Your task to perform on an android device: turn notification dots off Image 0: 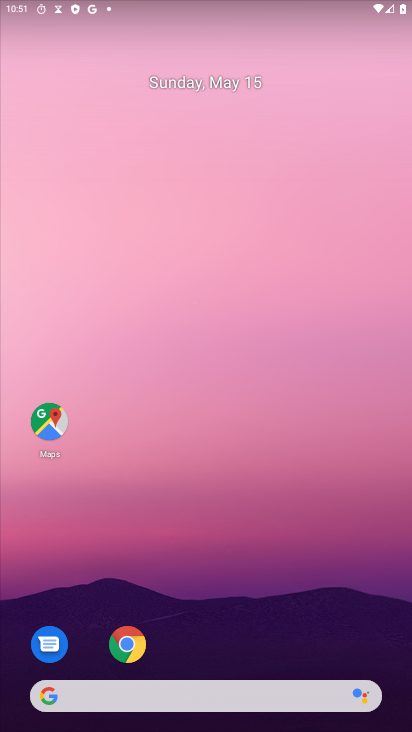
Step 0: drag from (258, 626) to (213, 284)
Your task to perform on an android device: turn notification dots off Image 1: 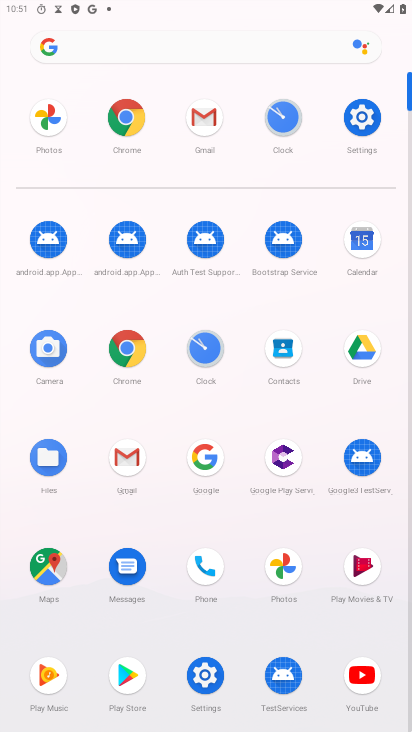
Step 1: click (366, 120)
Your task to perform on an android device: turn notification dots off Image 2: 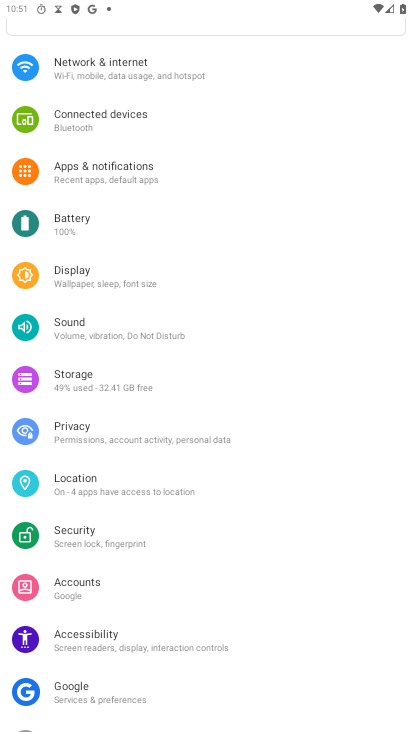
Step 2: click (60, 163)
Your task to perform on an android device: turn notification dots off Image 3: 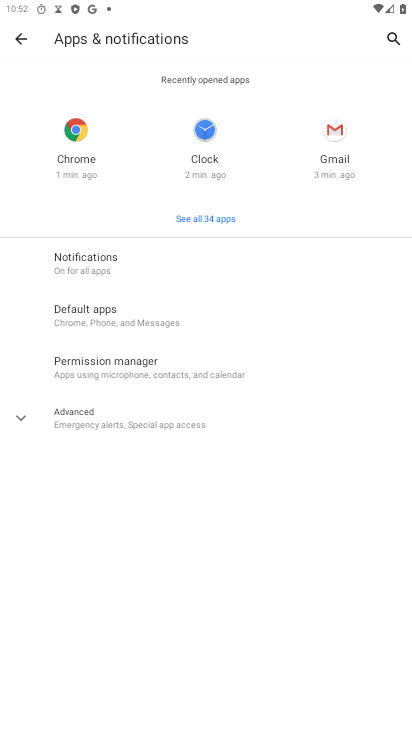
Step 3: click (146, 255)
Your task to perform on an android device: turn notification dots off Image 4: 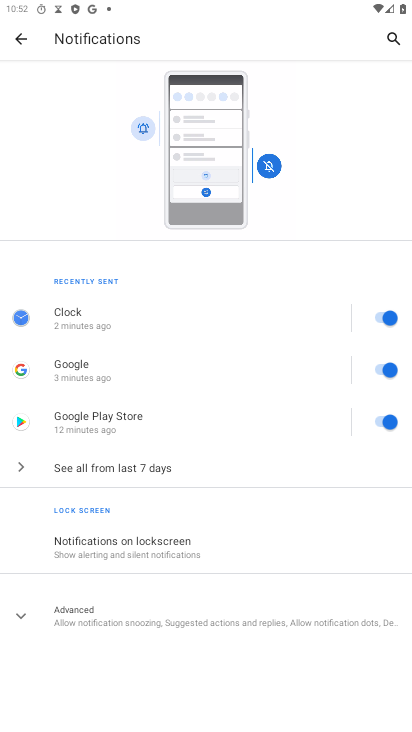
Step 4: click (184, 609)
Your task to perform on an android device: turn notification dots off Image 5: 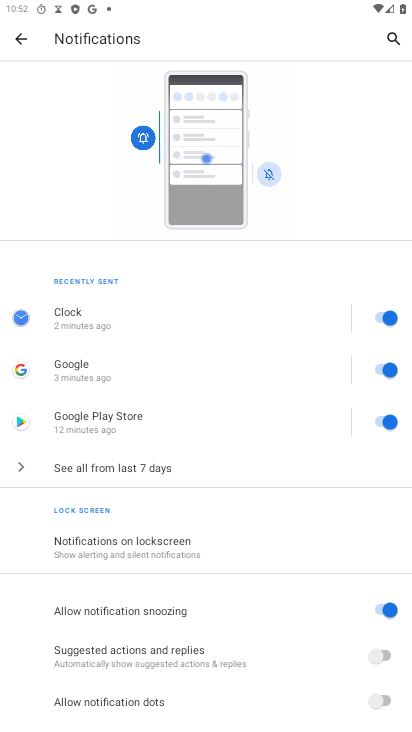
Step 5: task complete